Your task to perform on an android device: turn off airplane mode Image 0: 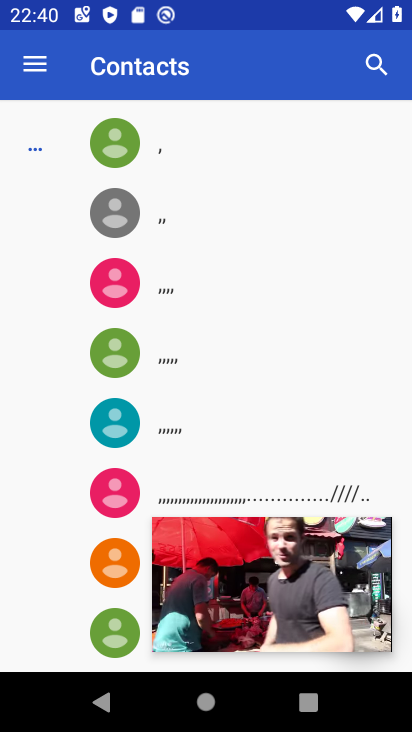
Step 0: press home button
Your task to perform on an android device: turn off airplane mode Image 1: 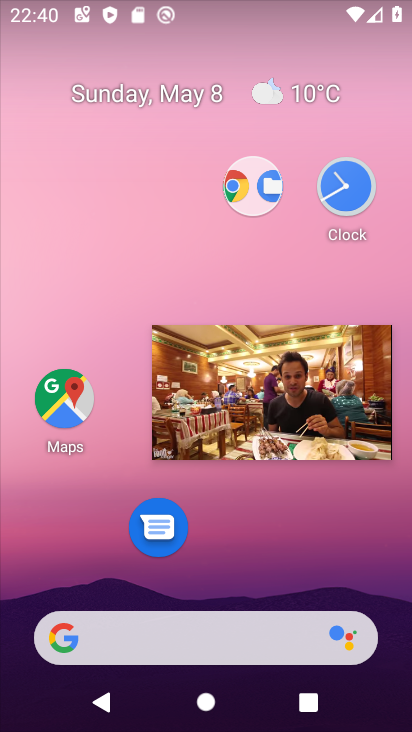
Step 1: drag from (282, 570) to (289, 102)
Your task to perform on an android device: turn off airplane mode Image 2: 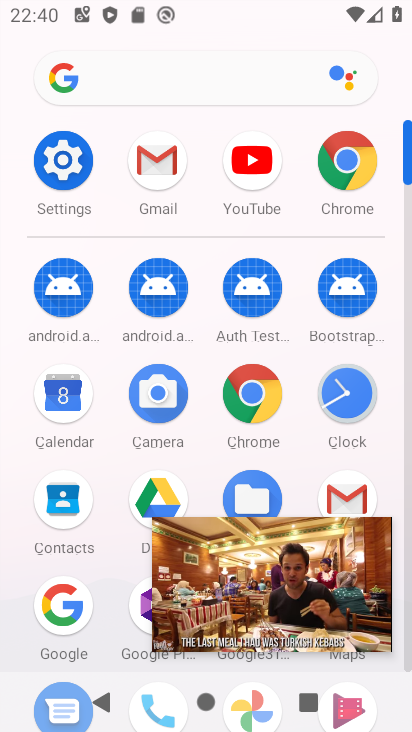
Step 2: click (48, 141)
Your task to perform on an android device: turn off airplane mode Image 3: 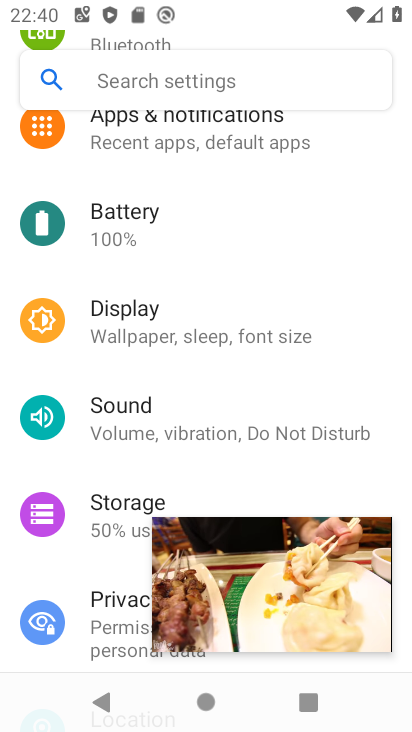
Step 3: drag from (276, 227) to (264, 484)
Your task to perform on an android device: turn off airplane mode Image 4: 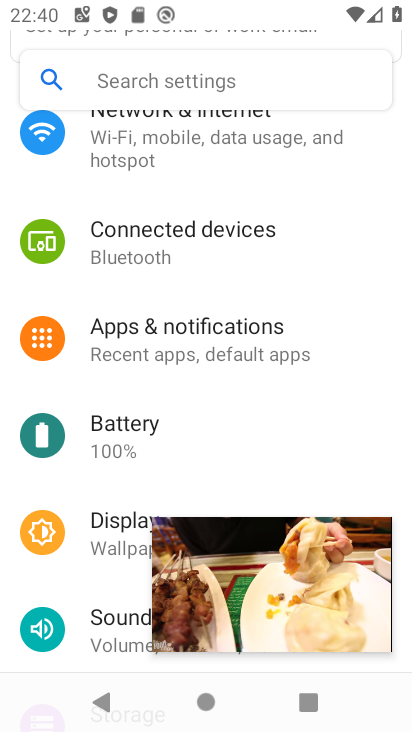
Step 4: click (213, 146)
Your task to perform on an android device: turn off airplane mode Image 5: 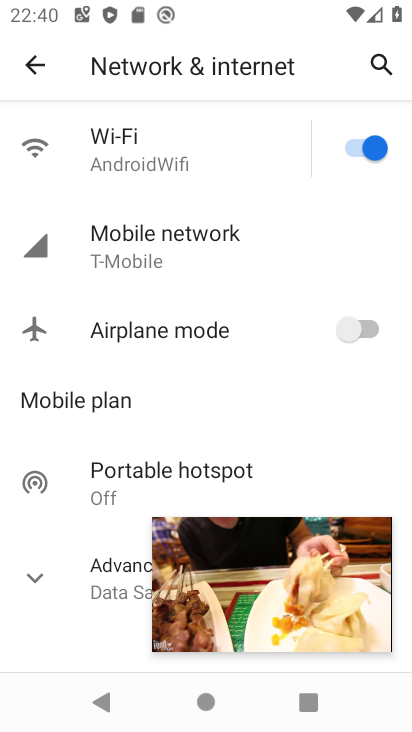
Step 5: task complete